Your task to perform on an android device: Search for seafood restaurants on Google Maps Image 0: 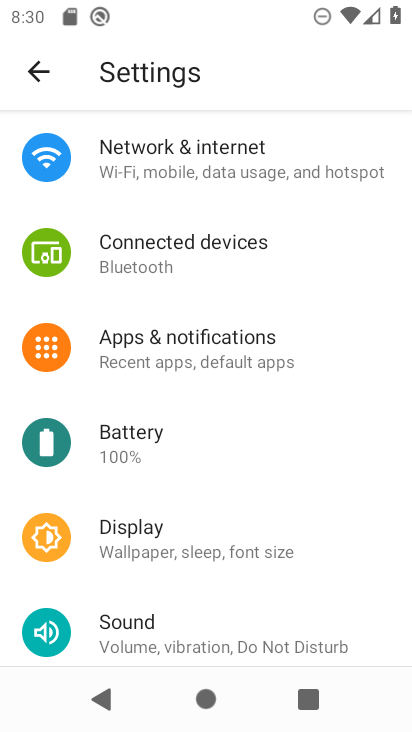
Step 0: press home button
Your task to perform on an android device: Search for seafood restaurants on Google Maps Image 1: 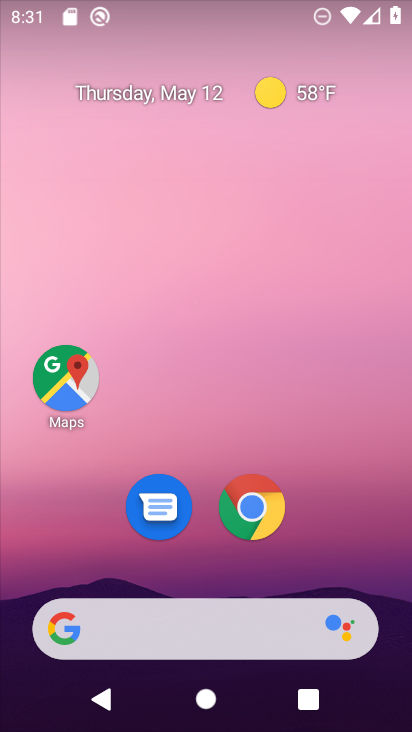
Step 1: click (63, 376)
Your task to perform on an android device: Search for seafood restaurants on Google Maps Image 2: 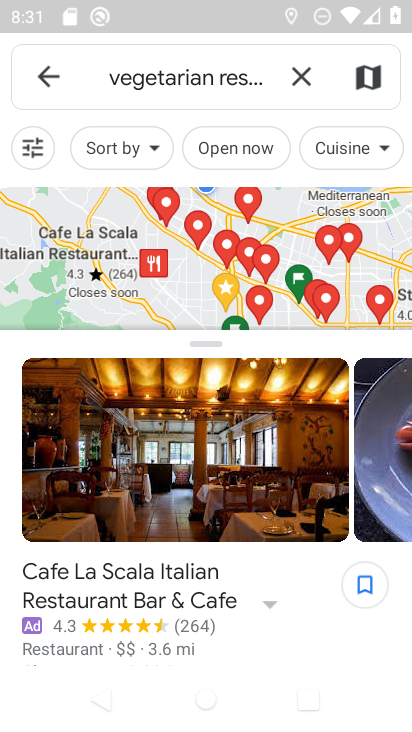
Step 2: click (286, 68)
Your task to perform on an android device: Search for seafood restaurants on Google Maps Image 3: 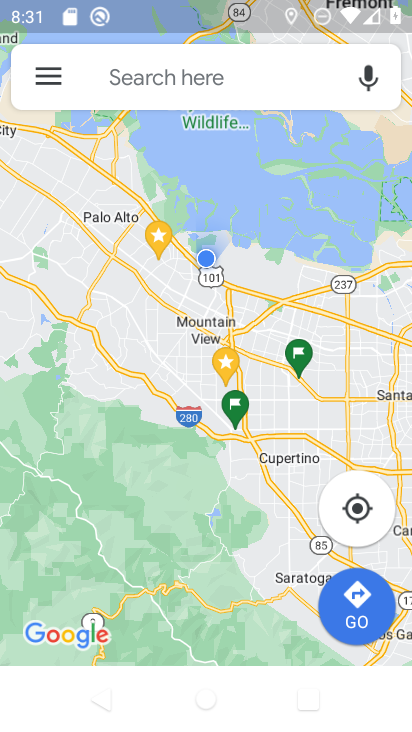
Step 3: click (182, 89)
Your task to perform on an android device: Search for seafood restaurants on Google Maps Image 4: 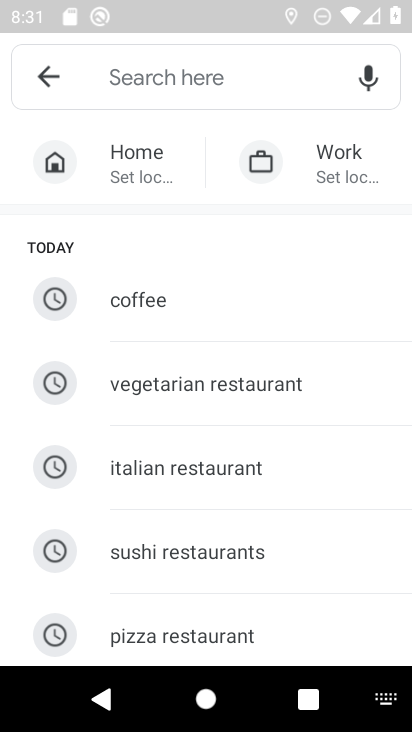
Step 4: type "seafood restaurants"
Your task to perform on an android device: Search for seafood restaurants on Google Maps Image 5: 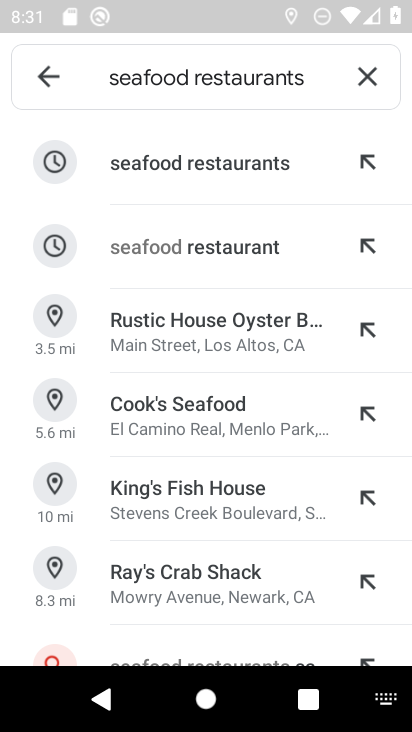
Step 5: click (188, 165)
Your task to perform on an android device: Search for seafood restaurants on Google Maps Image 6: 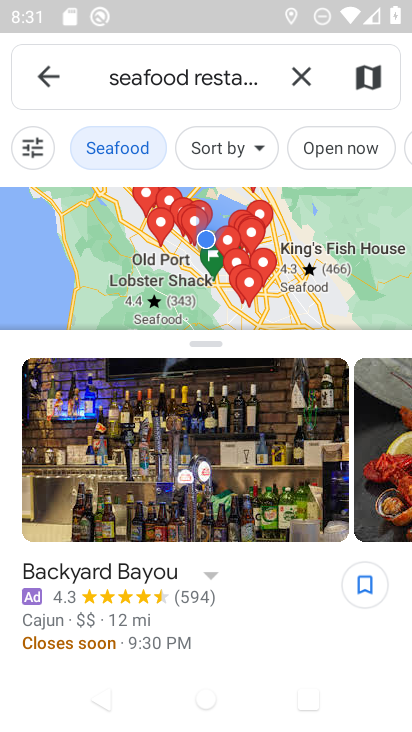
Step 6: task complete